Your task to perform on an android device: View the shopping cart on amazon.com. Search for alienware area 51 on amazon.com, select the first entry, and add it to the cart. Image 0: 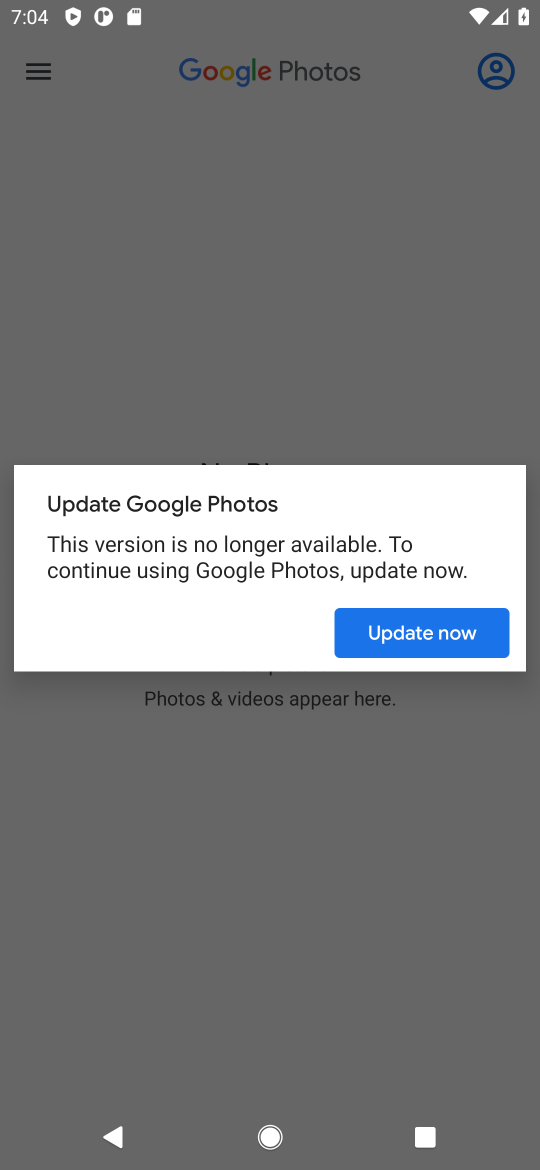
Step 0: press home button
Your task to perform on an android device: View the shopping cart on amazon.com. Search for alienware area 51 on amazon.com, select the first entry, and add it to the cart. Image 1: 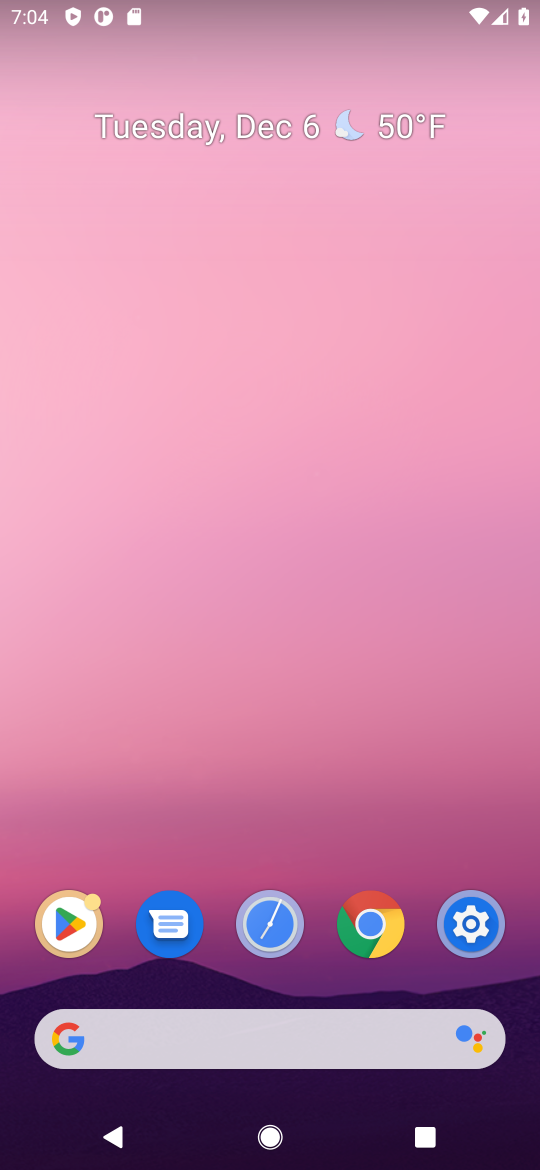
Step 1: click (265, 1044)
Your task to perform on an android device: View the shopping cart on amazon.com. Search for alienware area 51 on amazon.com, select the first entry, and add it to the cart. Image 2: 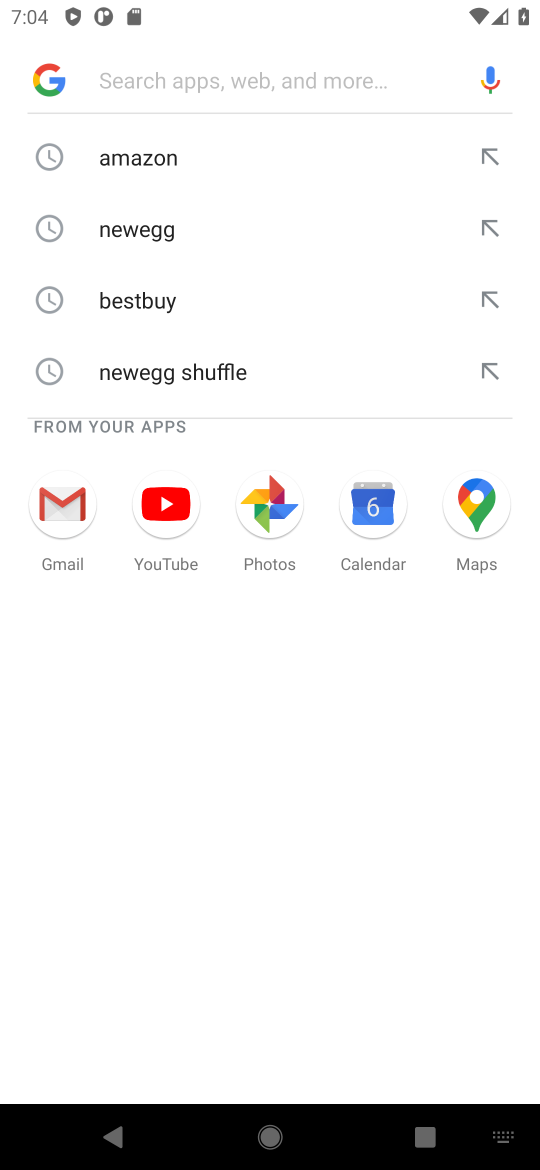
Step 2: click (139, 181)
Your task to perform on an android device: View the shopping cart on amazon.com. Search for alienware area 51 on amazon.com, select the first entry, and add it to the cart. Image 3: 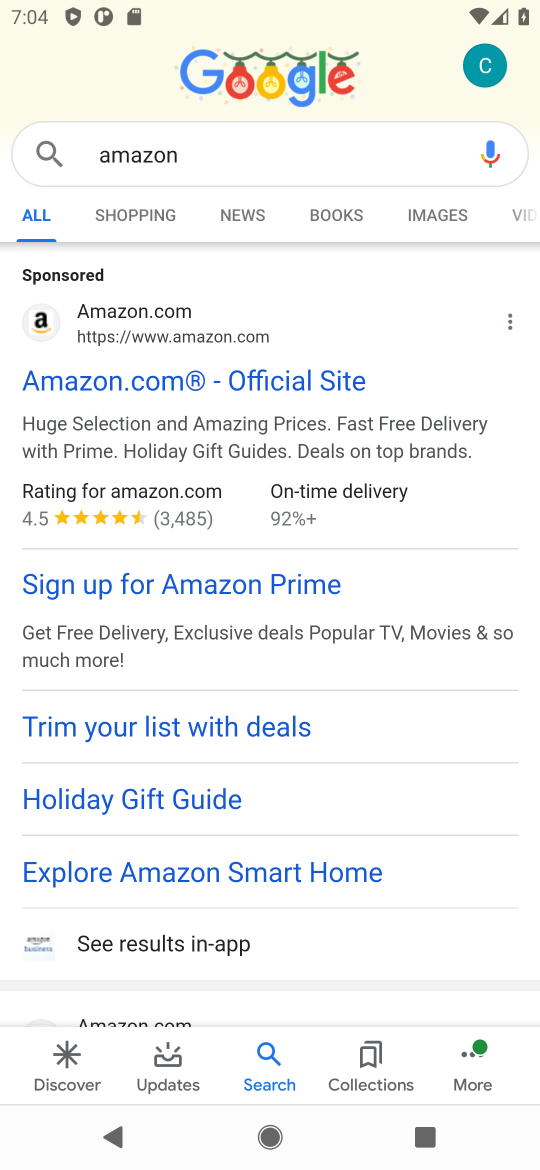
Step 3: click (185, 381)
Your task to perform on an android device: View the shopping cart on amazon.com. Search for alienware area 51 on amazon.com, select the first entry, and add it to the cart. Image 4: 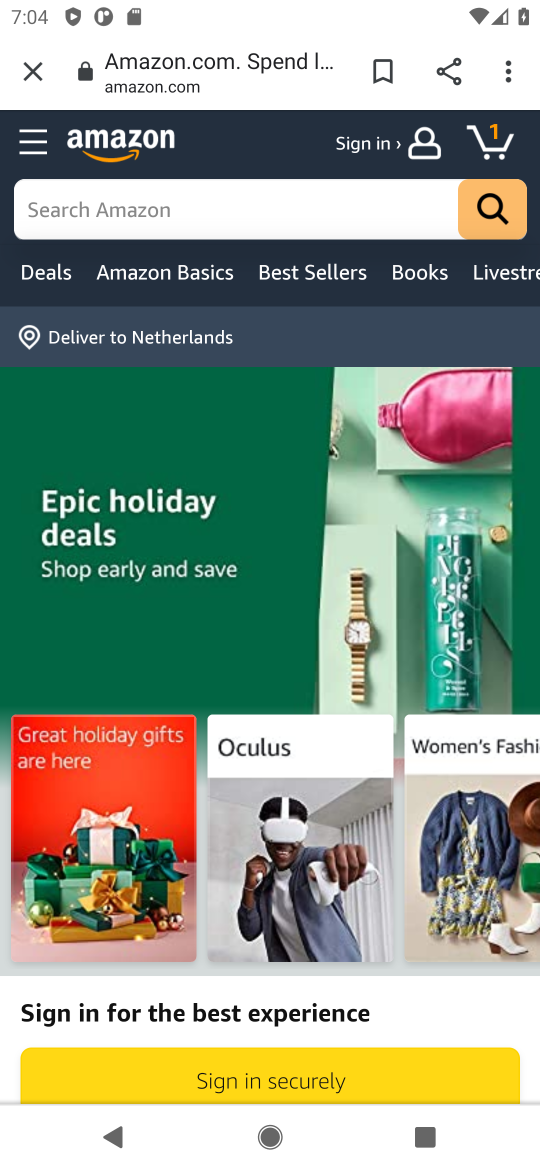
Step 4: click (145, 227)
Your task to perform on an android device: View the shopping cart on amazon.com. Search for alienware area 51 on amazon.com, select the first entry, and add it to the cart. Image 5: 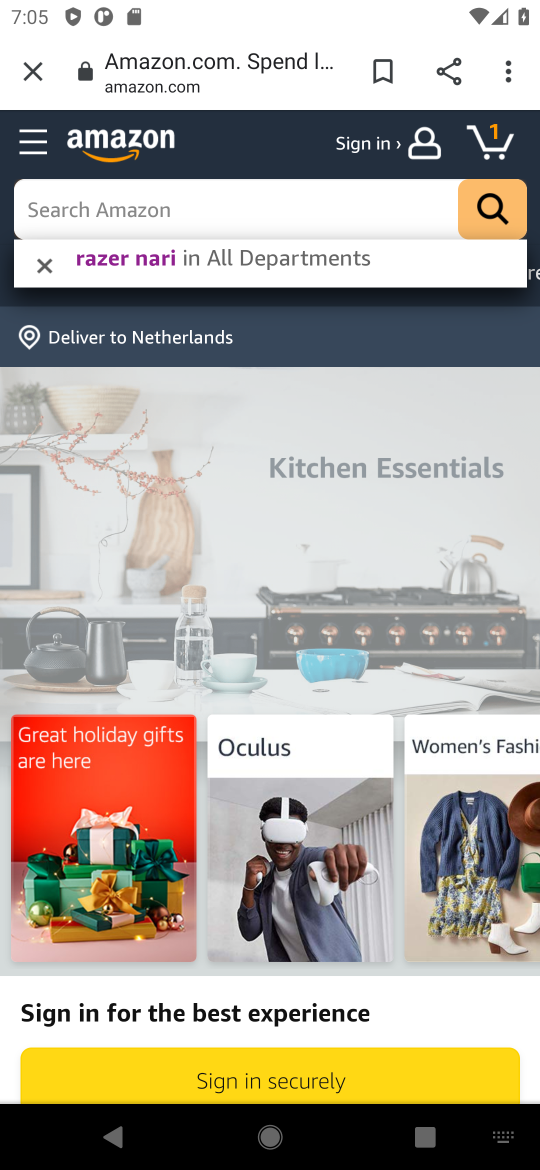
Step 5: type "alienware area 51"
Your task to perform on an android device: View the shopping cart on amazon.com. Search for alienware area 51 on amazon.com, select the first entry, and add it to the cart. Image 6: 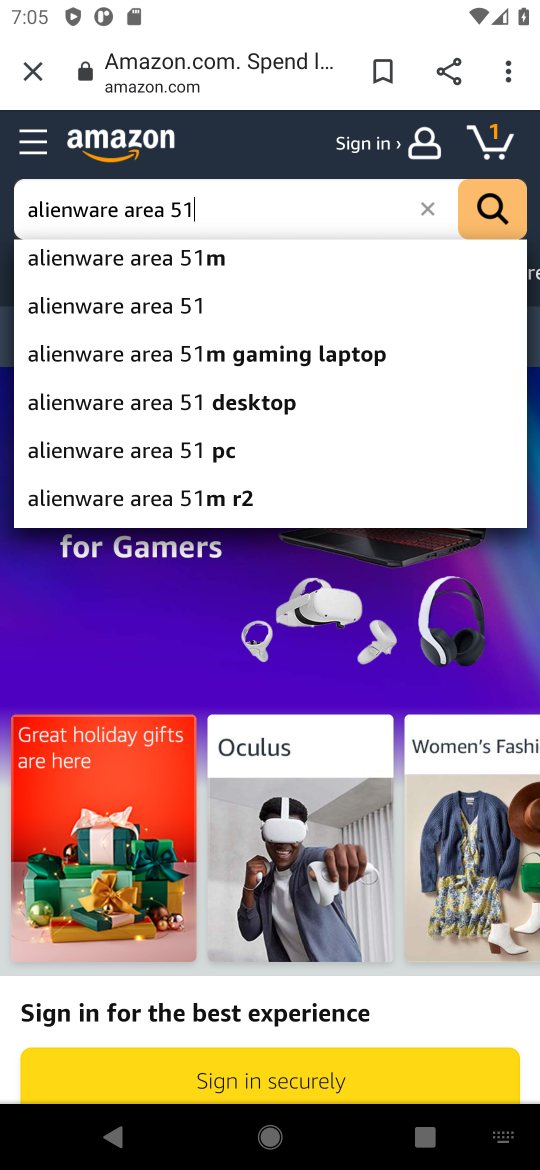
Step 6: click (476, 219)
Your task to perform on an android device: View the shopping cart on amazon.com. Search for alienware area 51 on amazon.com, select the first entry, and add it to the cart. Image 7: 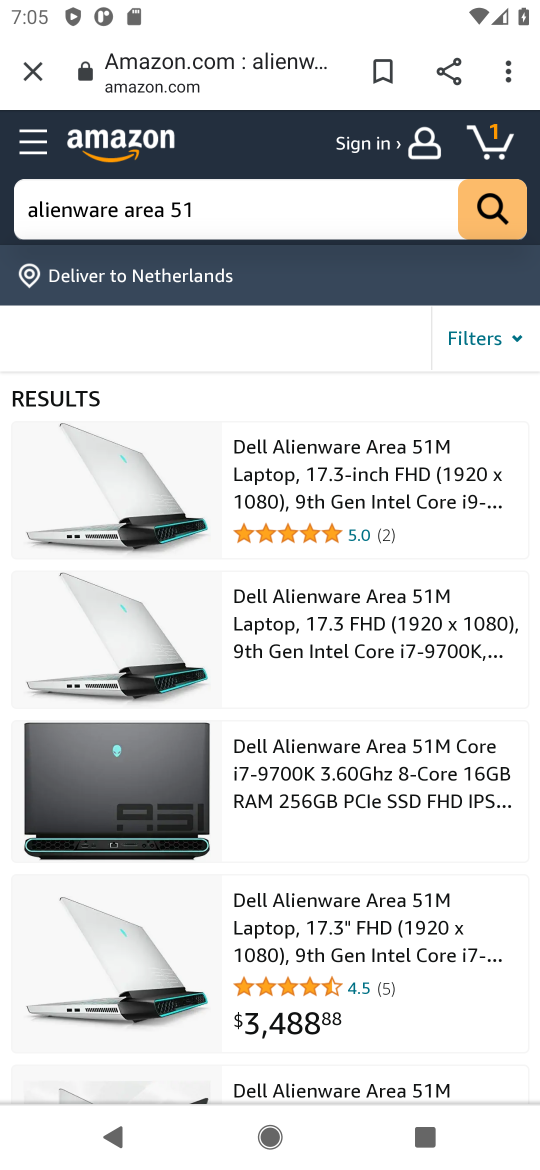
Step 7: click (340, 452)
Your task to perform on an android device: View the shopping cart on amazon.com. Search for alienware area 51 on amazon.com, select the first entry, and add it to the cart. Image 8: 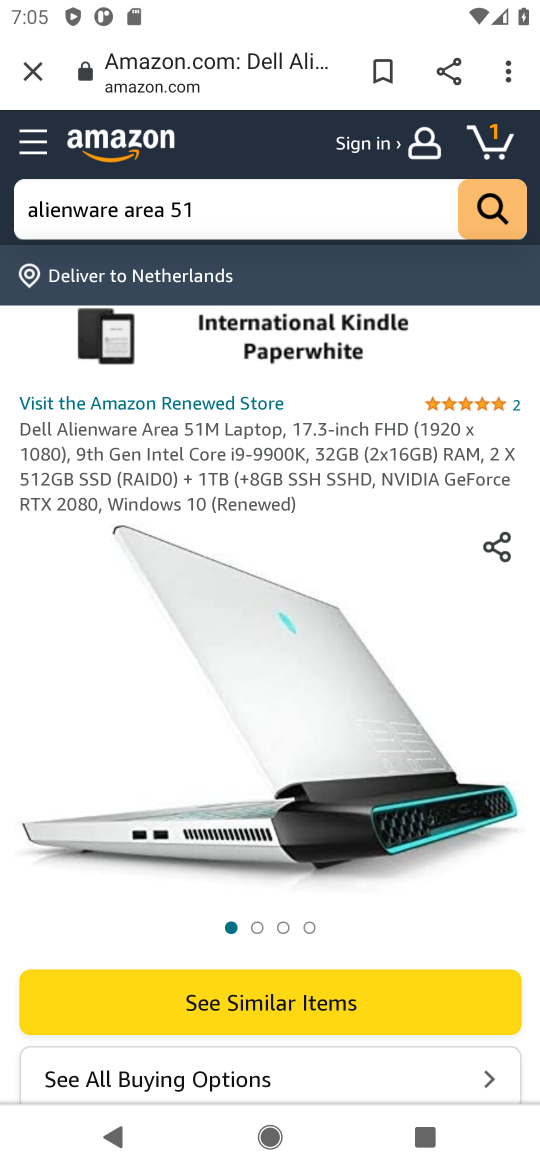
Step 8: drag from (399, 915) to (310, 169)
Your task to perform on an android device: View the shopping cart on amazon.com. Search for alienware area 51 on amazon.com, select the first entry, and add it to the cart. Image 9: 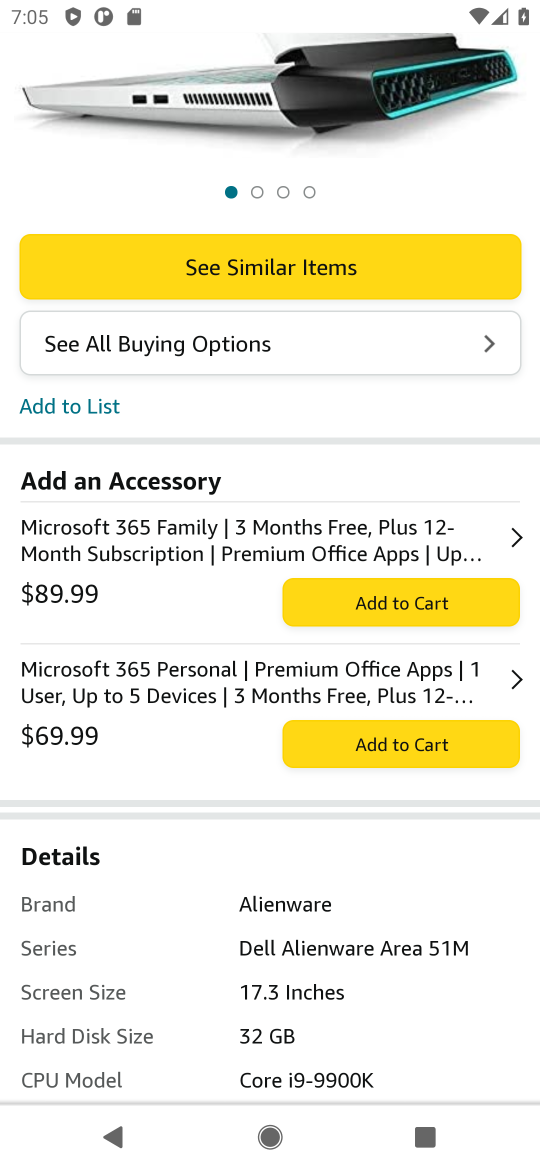
Step 9: drag from (413, 878) to (410, 246)
Your task to perform on an android device: View the shopping cart on amazon.com. Search for alienware area 51 on amazon.com, select the first entry, and add it to the cart. Image 10: 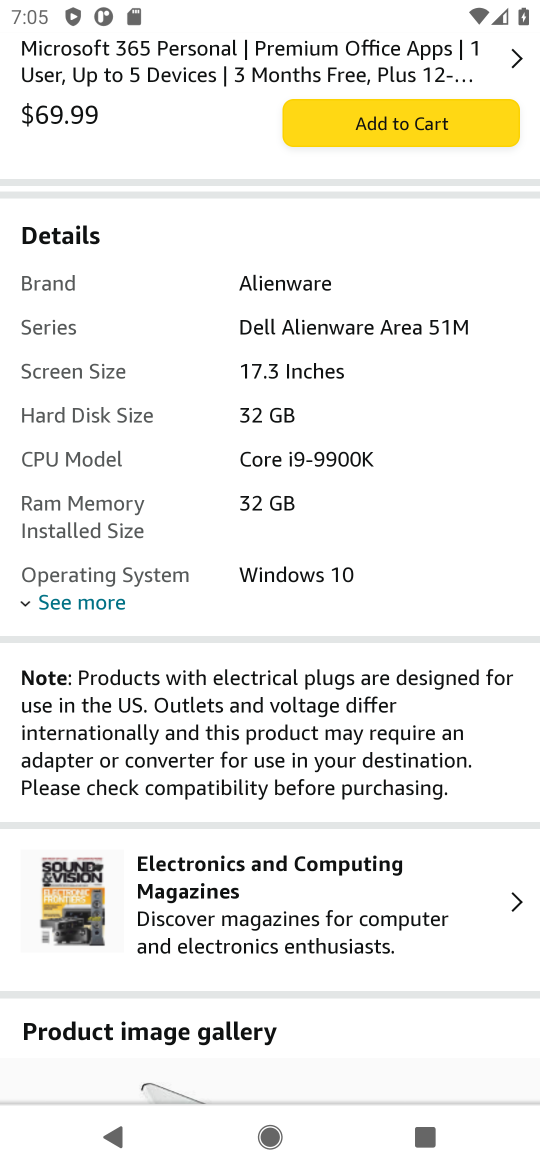
Step 10: drag from (423, 812) to (351, 163)
Your task to perform on an android device: View the shopping cart on amazon.com. Search for alienware area 51 on amazon.com, select the first entry, and add it to the cart. Image 11: 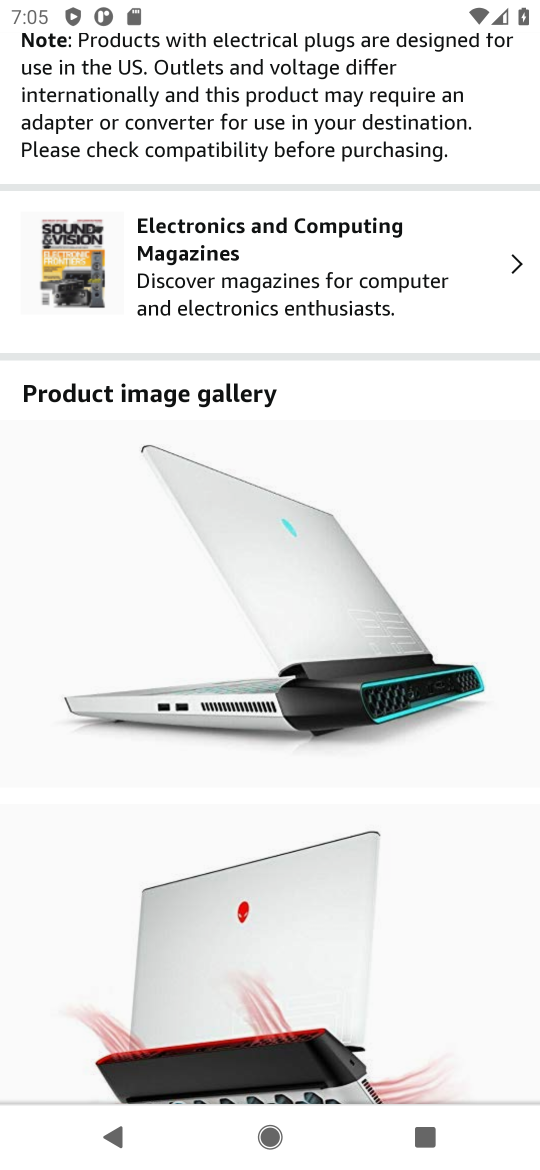
Step 11: drag from (432, 918) to (265, 150)
Your task to perform on an android device: View the shopping cart on amazon.com. Search for alienware area 51 on amazon.com, select the first entry, and add it to the cart. Image 12: 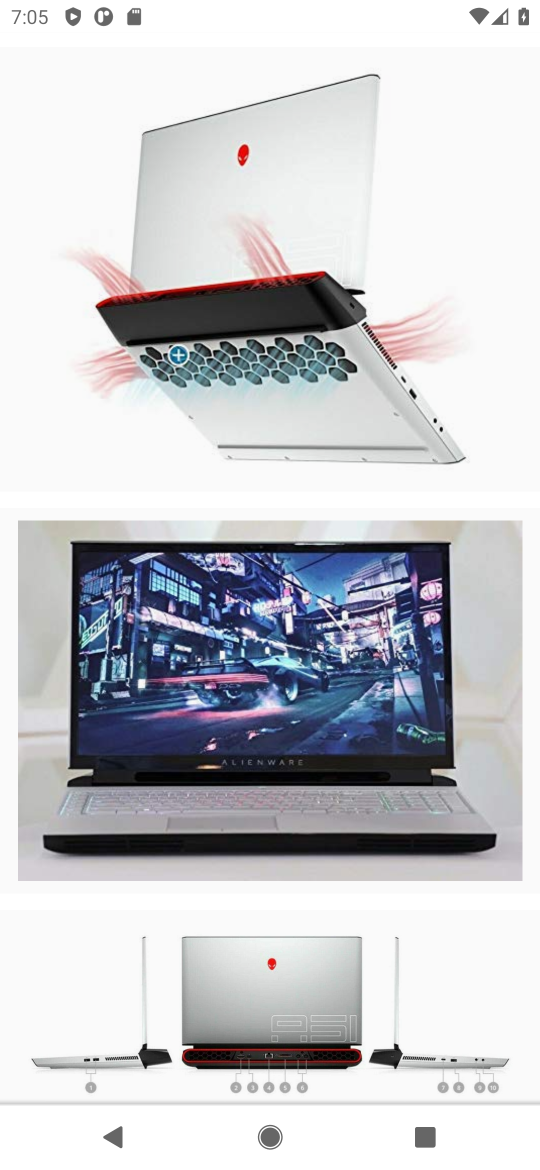
Step 12: drag from (404, 984) to (232, 153)
Your task to perform on an android device: View the shopping cart on amazon.com. Search for alienware area 51 on amazon.com, select the first entry, and add it to the cart. Image 13: 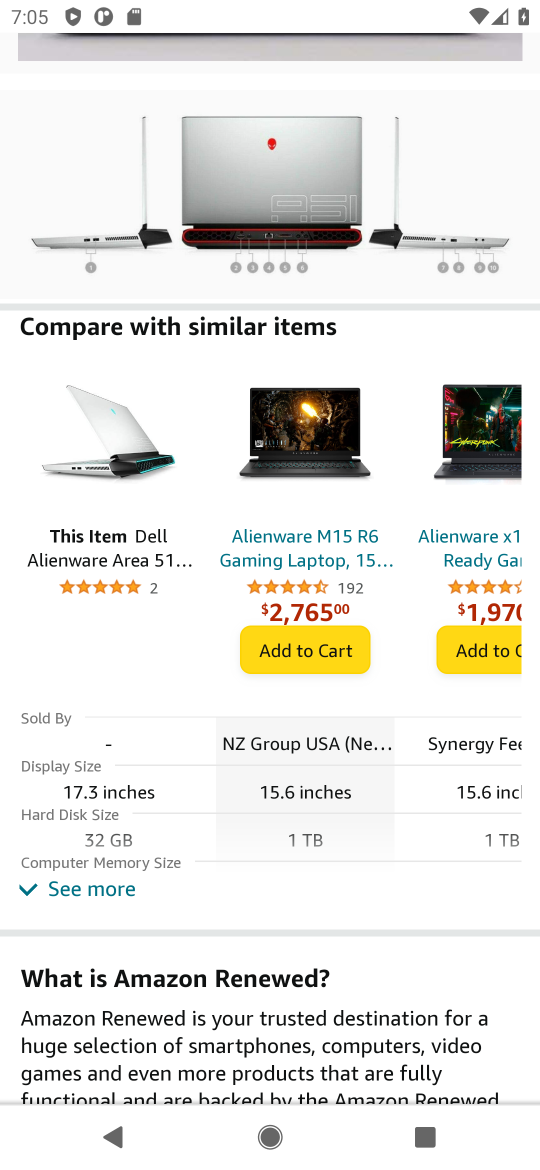
Step 13: click (311, 630)
Your task to perform on an android device: View the shopping cart on amazon.com. Search for alienware area 51 on amazon.com, select the first entry, and add it to the cart. Image 14: 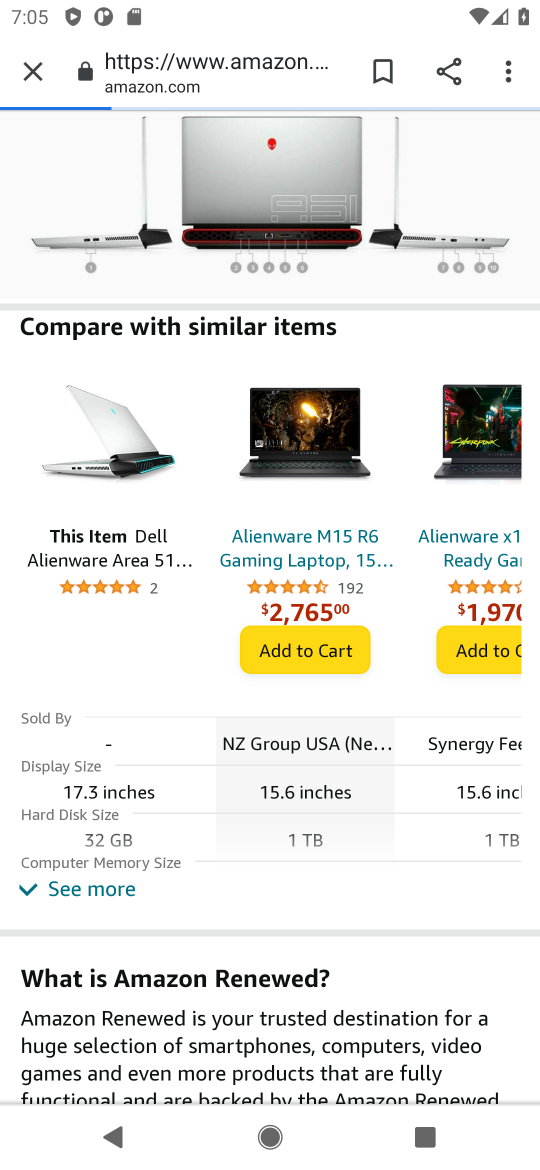
Step 14: task complete